Your task to perform on an android device: stop showing notifications on the lock screen Image 0: 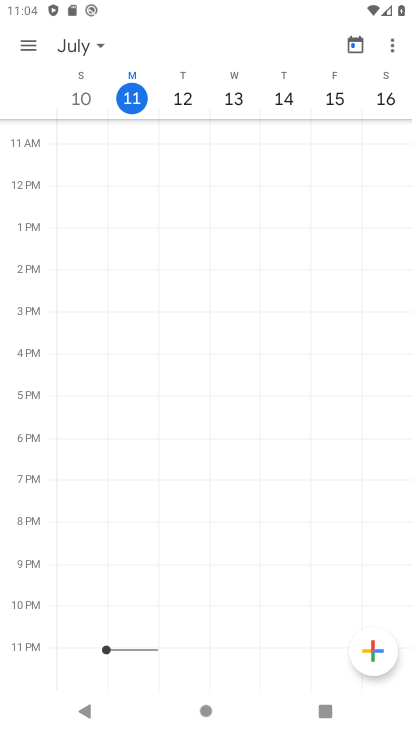
Step 0: press home button
Your task to perform on an android device: stop showing notifications on the lock screen Image 1: 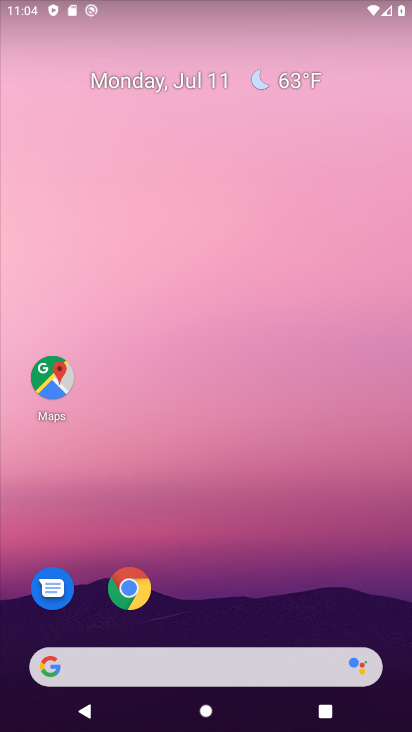
Step 1: drag from (230, 695) to (223, 207)
Your task to perform on an android device: stop showing notifications on the lock screen Image 2: 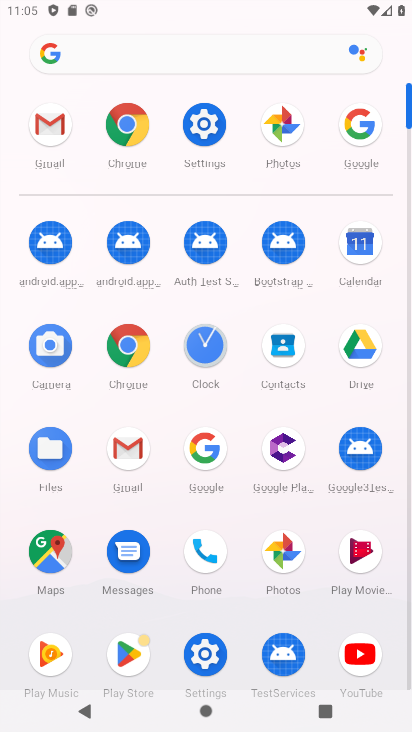
Step 2: click (210, 121)
Your task to perform on an android device: stop showing notifications on the lock screen Image 3: 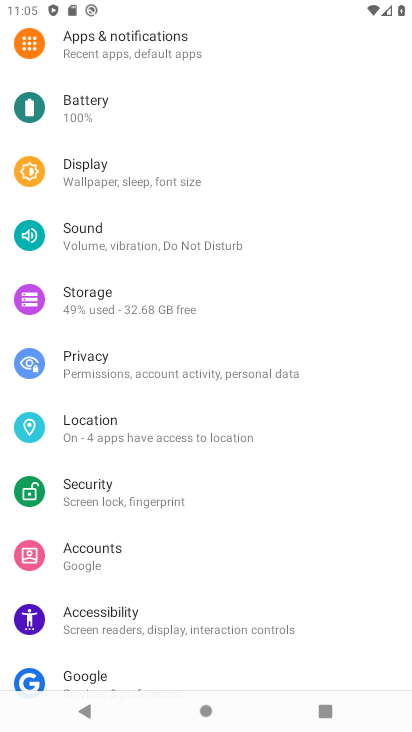
Step 3: click (131, 44)
Your task to perform on an android device: stop showing notifications on the lock screen Image 4: 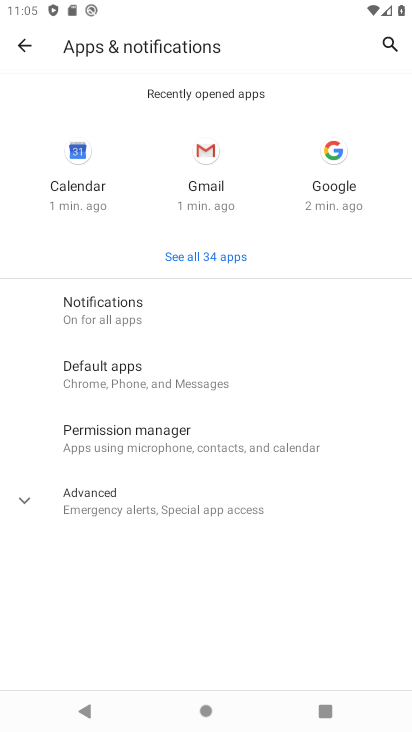
Step 4: click (105, 321)
Your task to perform on an android device: stop showing notifications on the lock screen Image 5: 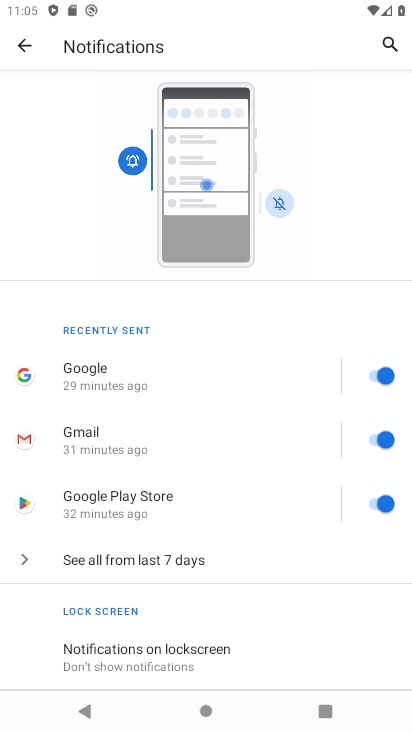
Step 5: click (172, 646)
Your task to perform on an android device: stop showing notifications on the lock screen Image 6: 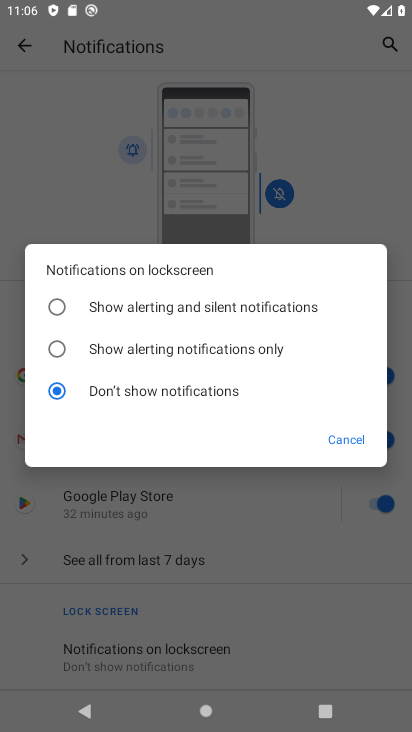
Step 6: click (352, 432)
Your task to perform on an android device: stop showing notifications on the lock screen Image 7: 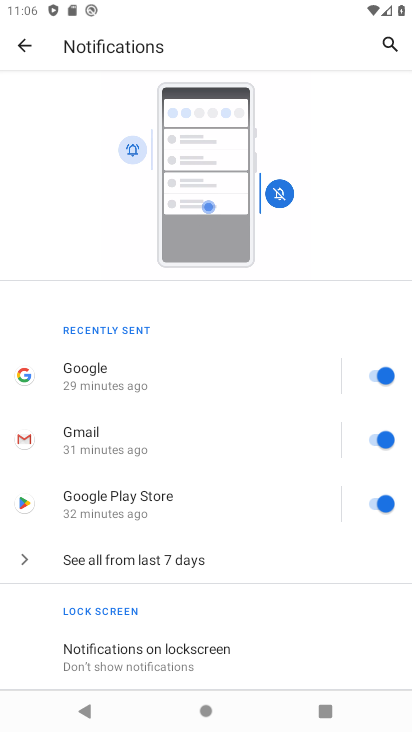
Step 7: task complete